Your task to perform on an android device: all mails in gmail Image 0: 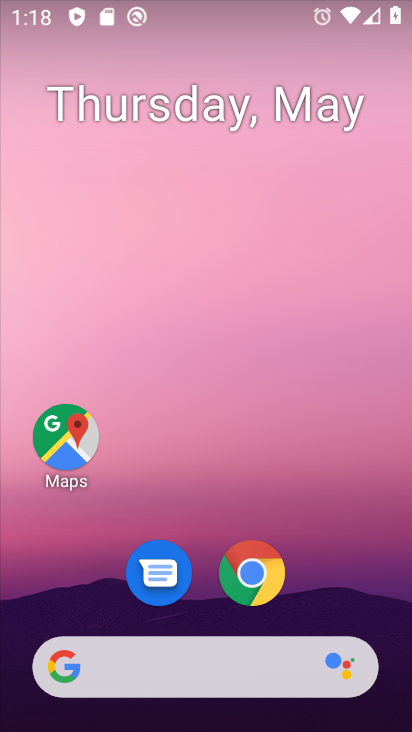
Step 0: drag from (387, 569) to (335, 138)
Your task to perform on an android device: all mails in gmail Image 1: 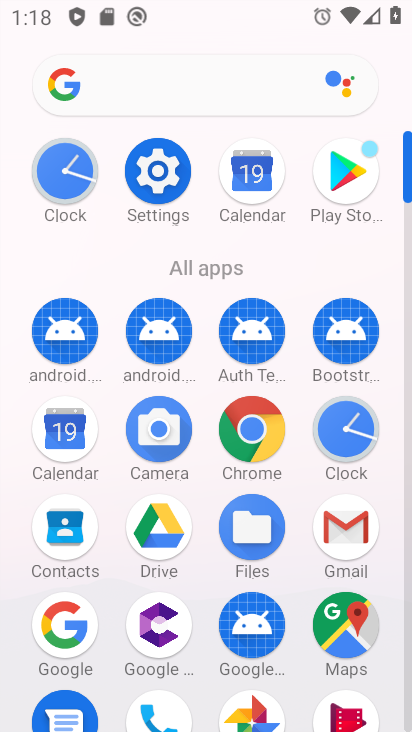
Step 1: click (357, 515)
Your task to perform on an android device: all mails in gmail Image 2: 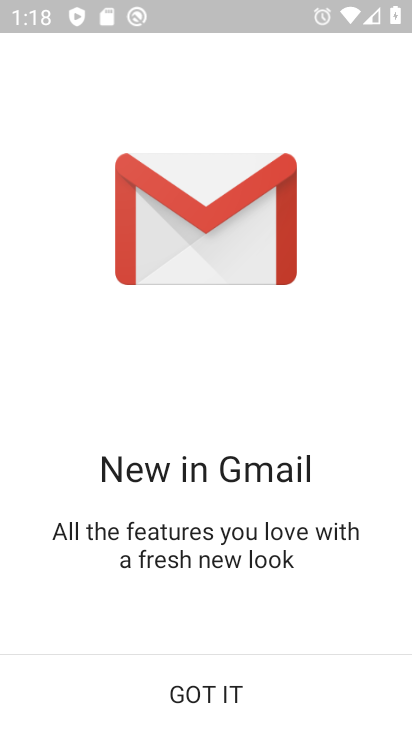
Step 2: click (197, 688)
Your task to perform on an android device: all mails in gmail Image 3: 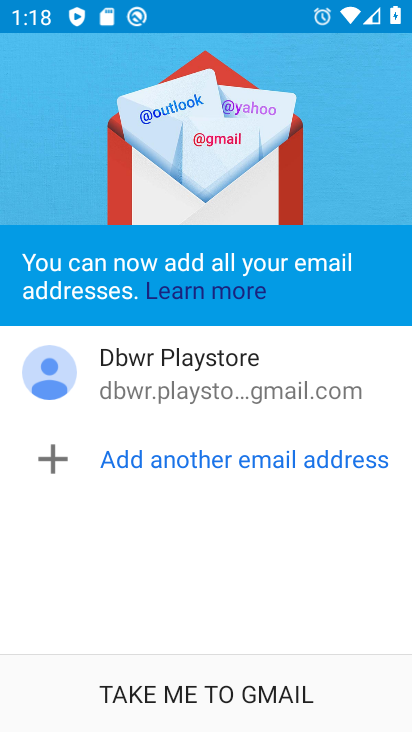
Step 3: click (196, 688)
Your task to perform on an android device: all mails in gmail Image 4: 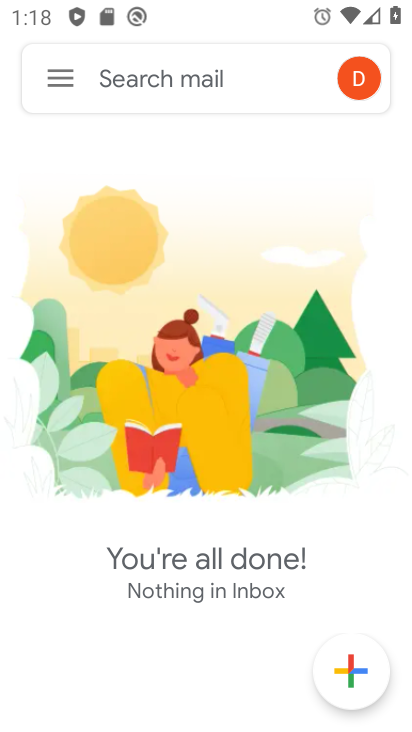
Step 4: click (50, 80)
Your task to perform on an android device: all mails in gmail Image 5: 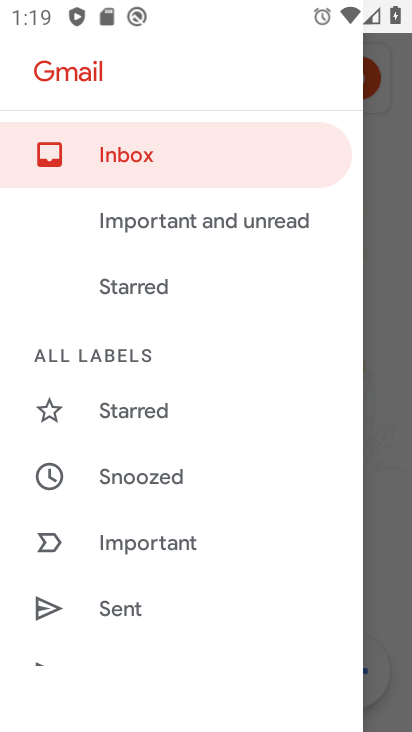
Step 5: drag from (219, 604) to (205, 345)
Your task to perform on an android device: all mails in gmail Image 6: 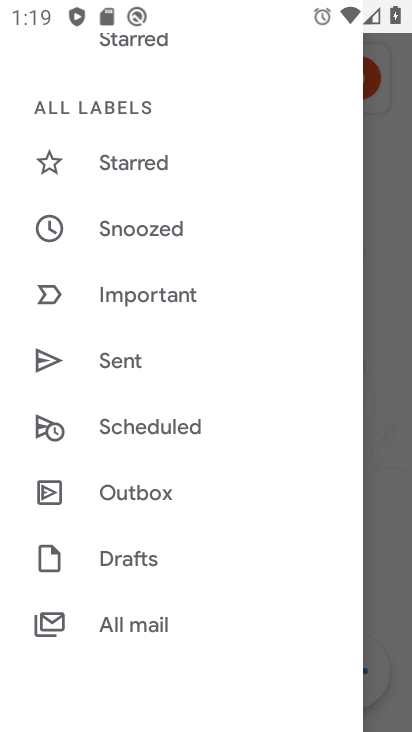
Step 6: click (153, 618)
Your task to perform on an android device: all mails in gmail Image 7: 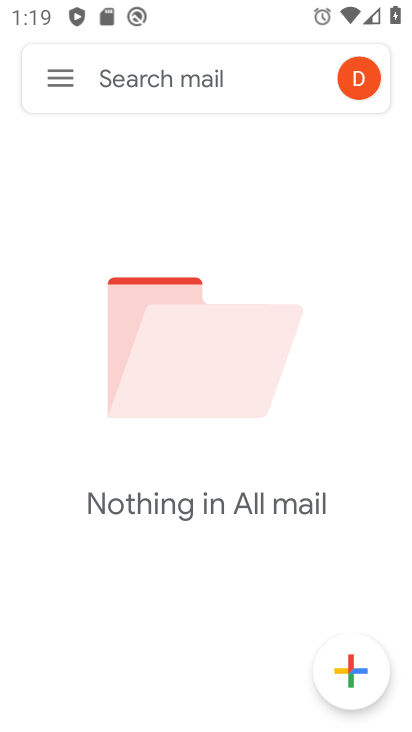
Step 7: task complete